Your task to perform on an android device: see tabs open on other devices in the chrome app Image 0: 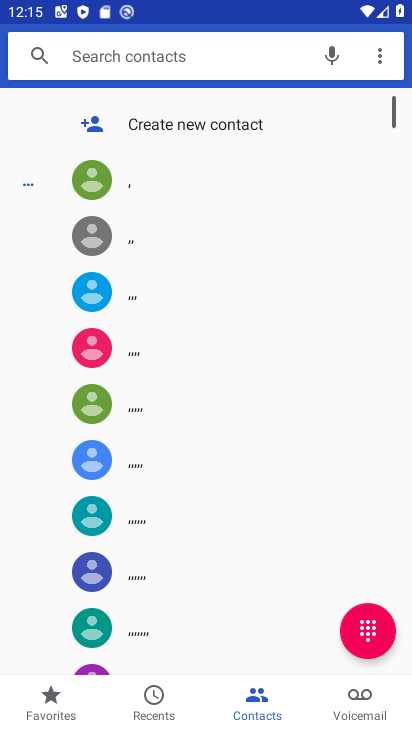
Step 0: press home button
Your task to perform on an android device: see tabs open on other devices in the chrome app Image 1: 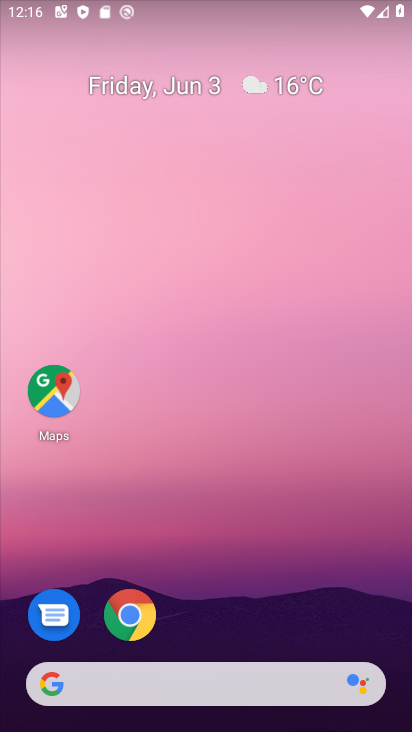
Step 1: click (123, 611)
Your task to perform on an android device: see tabs open on other devices in the chrome app Image 2: 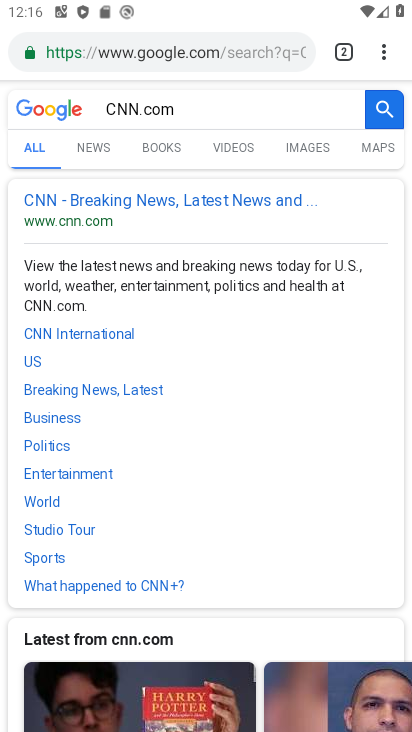
Step 2: click (379, 44)
Your task to perform on an android device: see tabs open on other devices in the chrome app Image 3: 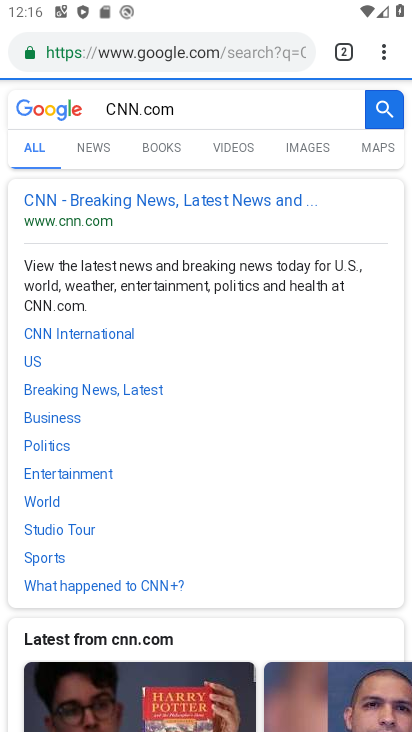
Step 3: click (380, 45)
Your task to perform on an android device: see tabs open on other devices in the chrome app Image 4: 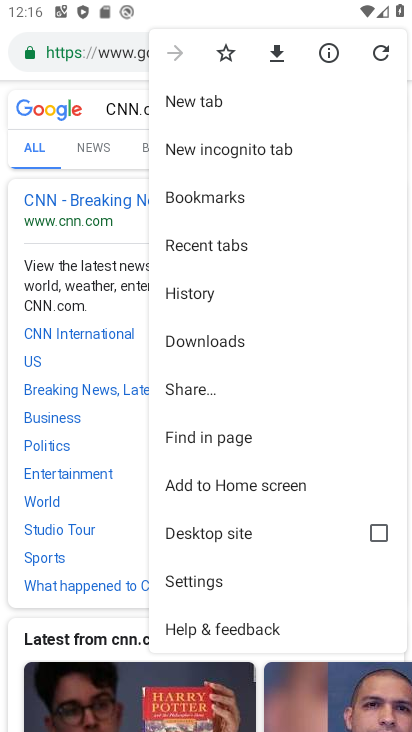
Step 4: click (210, 297)
Your task to perform on an android device: see tabs open on other devices in the chrome app Image 5: 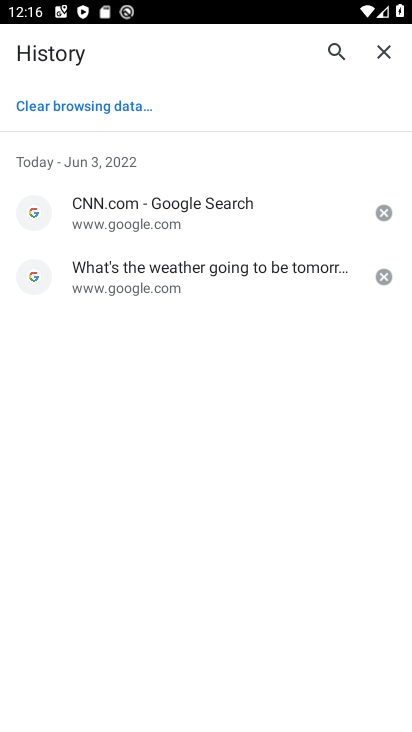
Step 5: task complete